Your task to perform on an android device: What is the recent news? Image 0: 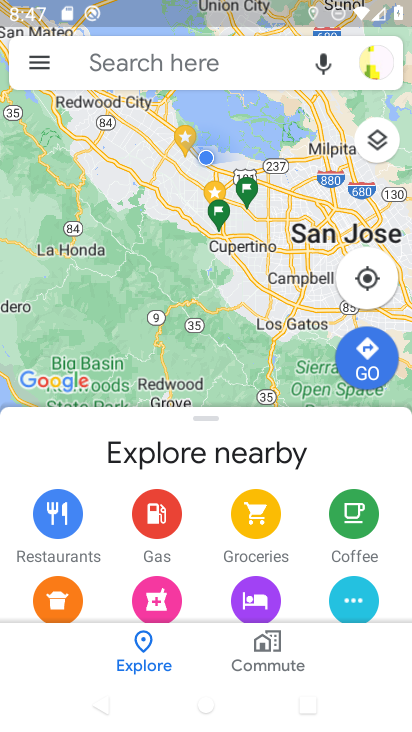
Step 0: press home button
Your task to perform on an android device: What is the recent news? Image 1: 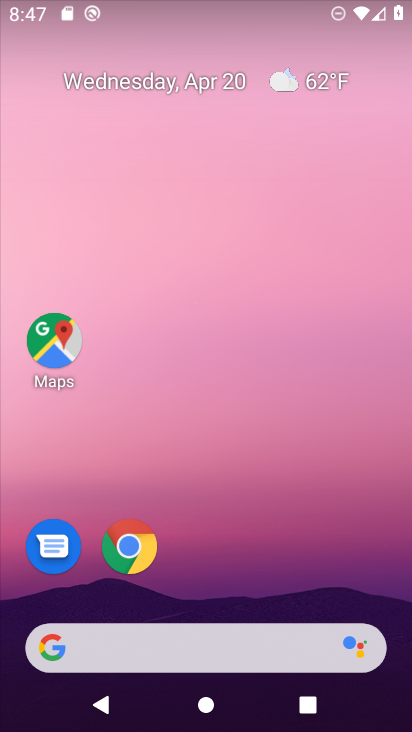
Step 1: click (242, 642)
Your task to perform on an android device: What is the recent news? Image 2: 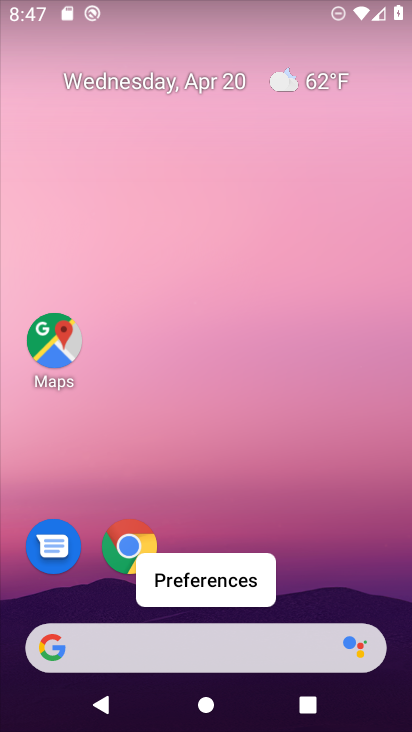
Step 2: click (242, 642)
Your task to perform on an android device: What is the recent news? Image 3: 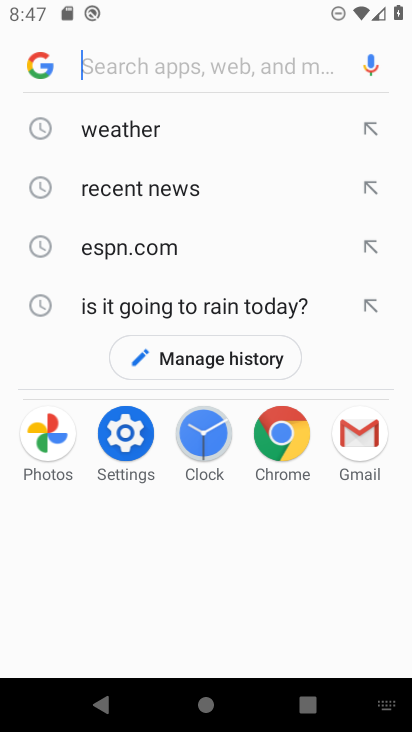
Step 3: click (186, 183)
Your task to perform on an android device: What is the recent news? Image 4: 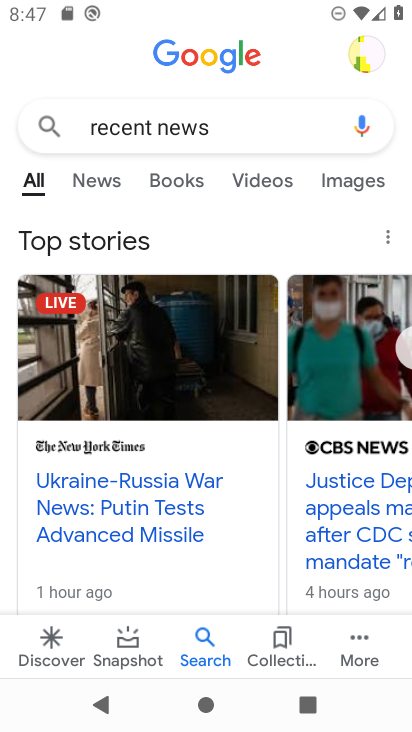
Step 4: task complete